Your task to perform on an android device: turn on airplane mode Image 0: 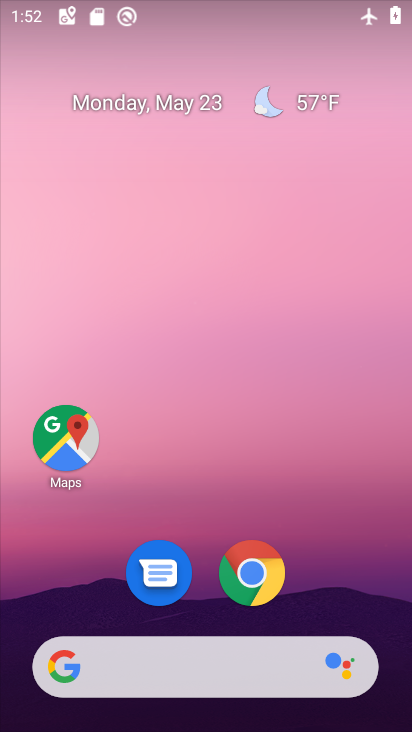
Step 0: drag from (311, 547) to (250, 128)
Your task to perform on an android device: turn on airplane mode Image 1: 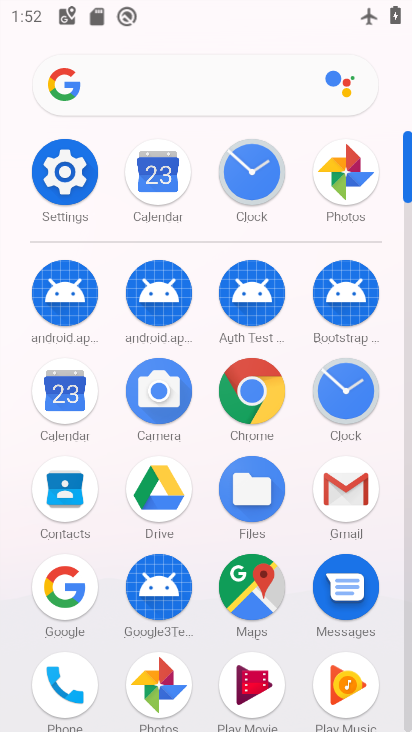
Step 1: drag from (278, 556) to (254, 174)
Your task to perform on an android device: turn on airplane mode Image 2: 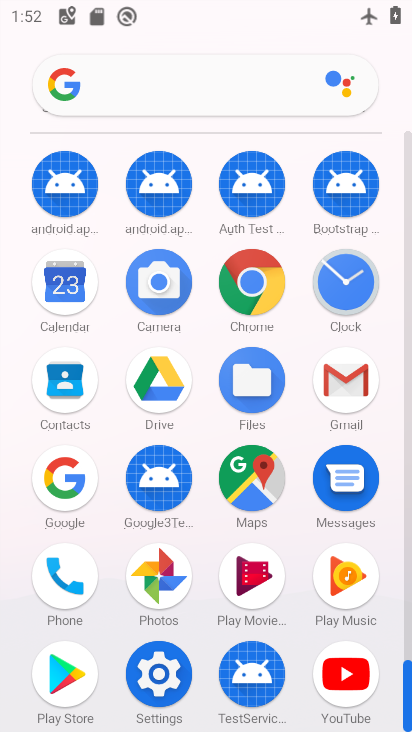
Step 2: click (139, 673)
Your task to perform on an android device: turn on airplane mode Image 3: 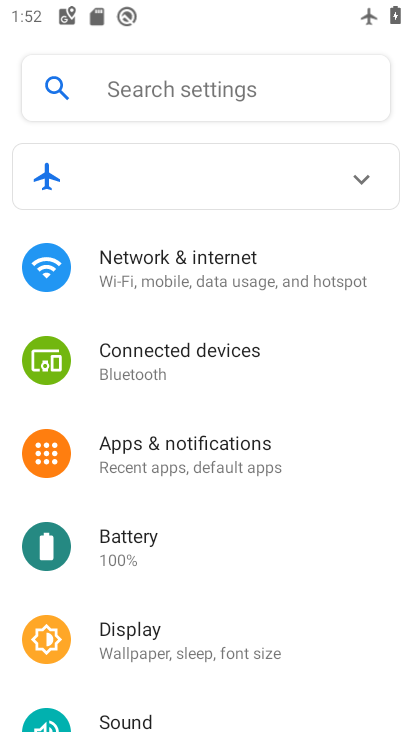
Step 3: click (353, 172)
Your task to perform on an android device: turn on airplane mode Image 4: 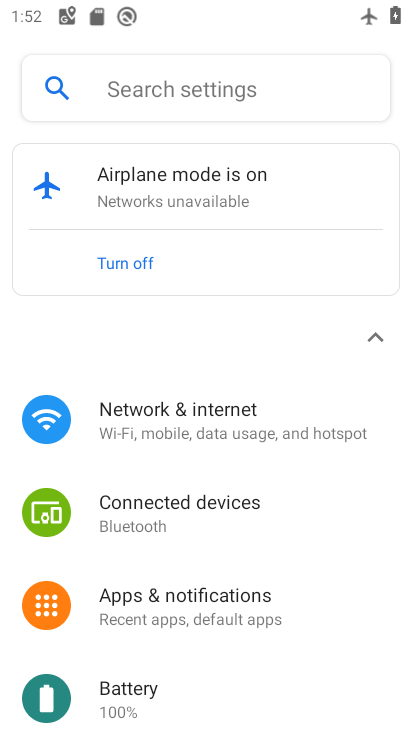
Step 4: click (113, 183)
Your task to perform on an android device: turn on airplane mode Image 5: 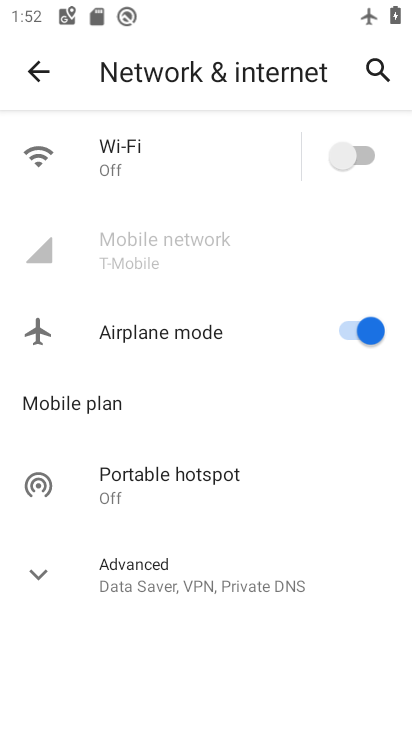
Step 5: task complete